Your task to perform on an android device: Open network settings Image 0: 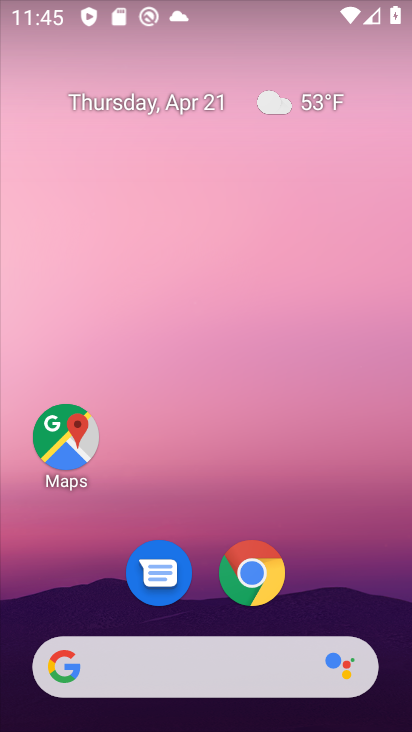
Step 0: drag from (172, 656) to (320, 7)
Your task to perform on an android device: Open network settings Image 1: 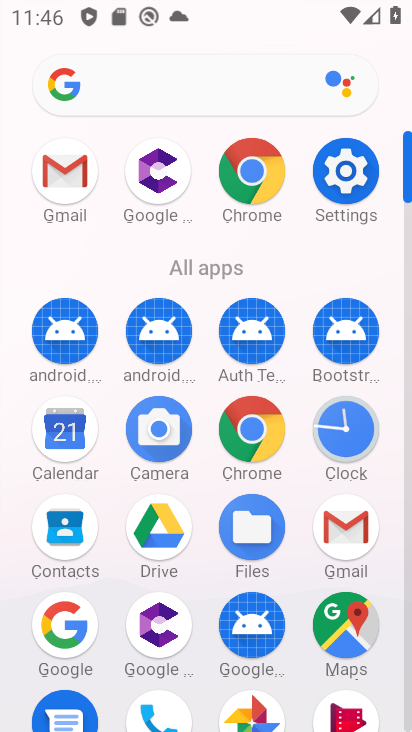
Step 1: click (341, 168)
Your task to perform on an android device: Open network settings Image 2: 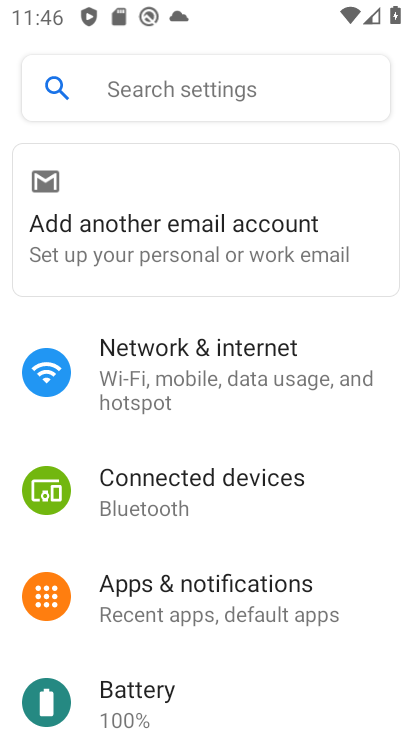
Step 2: click (226, 373)
Your task to perform on an android device: Open network settings Image 3: 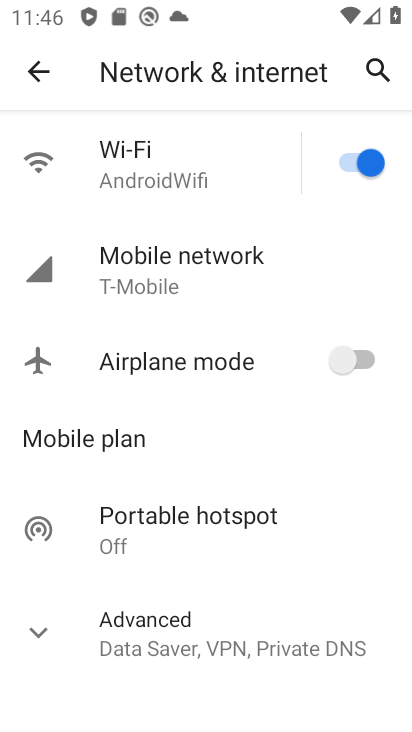
Step 3: task complete